Your task to perform on an android device: Open Yahoo.com Image 0: 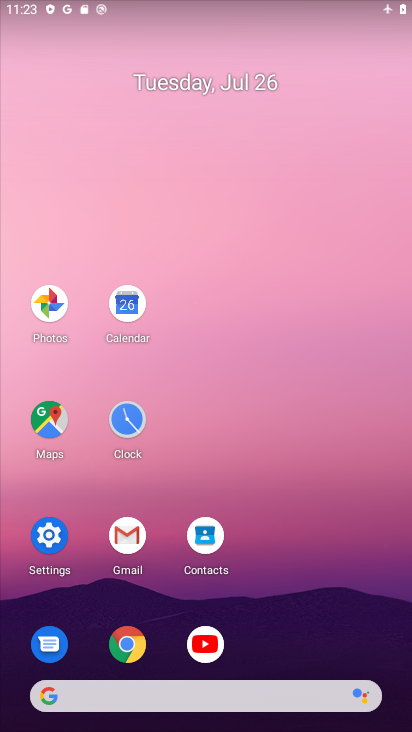
Step 0: click (122, 645)
Your task to perform on an android device: Open Yahoo.com Image 1: 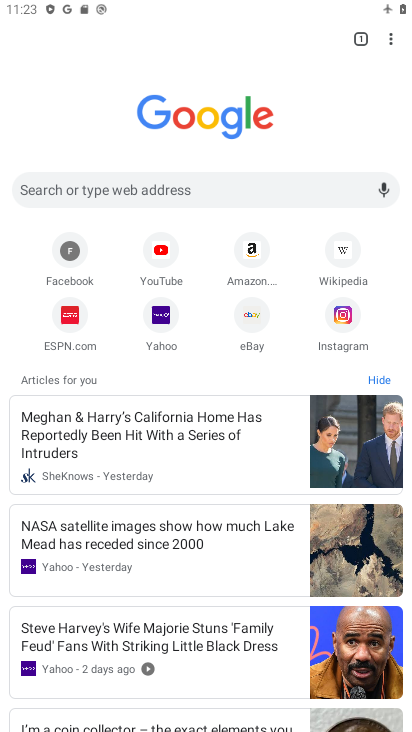
Step 1: click (158, 313)
Your task to perform on an android device: Open Yahoo.com Image 2: 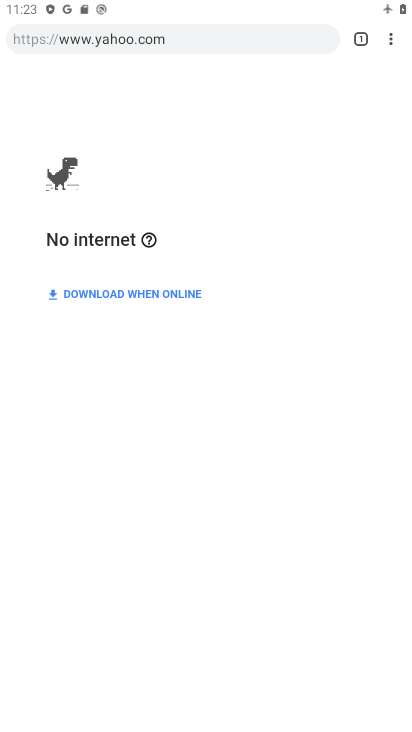
Step 2: task complete